Your task to perform on an android device: What's the weather? Image 0: 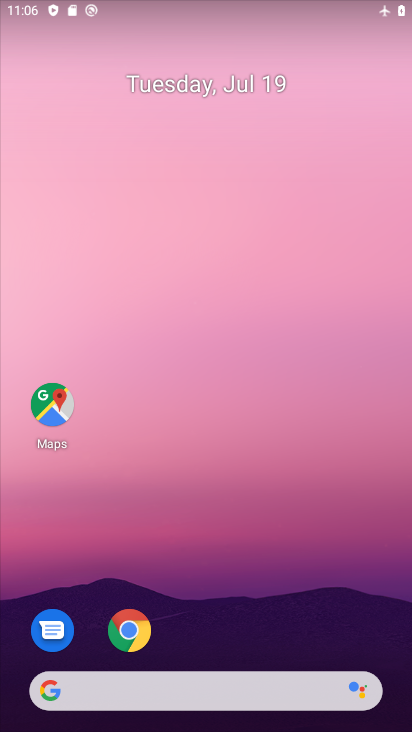
Step 0: drag from (239, 616) to (232, 224)
Your task to perform on an android device: What's the weather? Image 1: 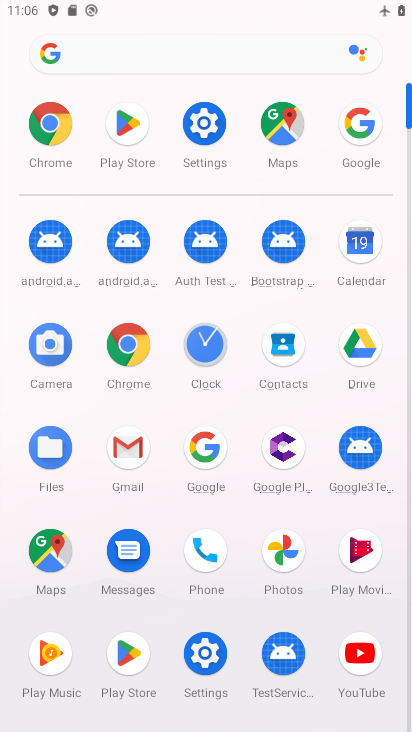
Step 1: click (195, 446)
Your task to perform on an android device: What's the weather? Image 2: 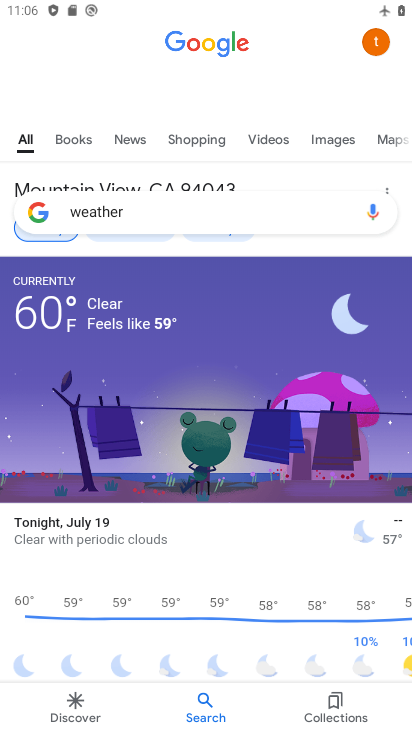
Step 2: task complete